Your task to perform on an android device: Search for vegetarian restaurants on Maps Image 0: 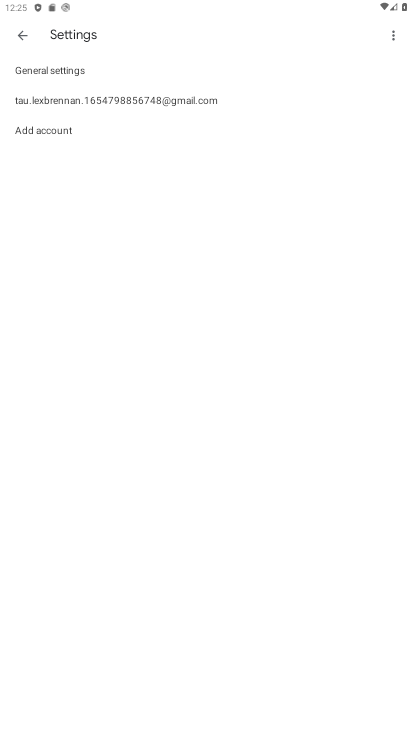
Step 0: press home button
Your task to perform on an android device: Search for vegetarian restaurants on Maps Image 1: 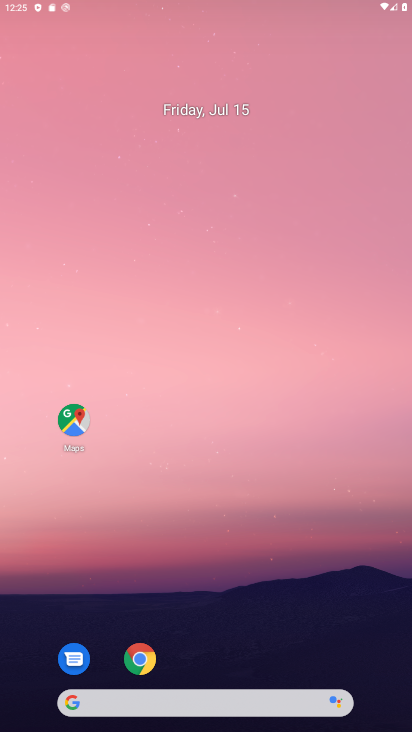
Step 1: click (65, 416)
Your task to perform on an android device: Search for vegetarian restaurants on Maps Image 2: 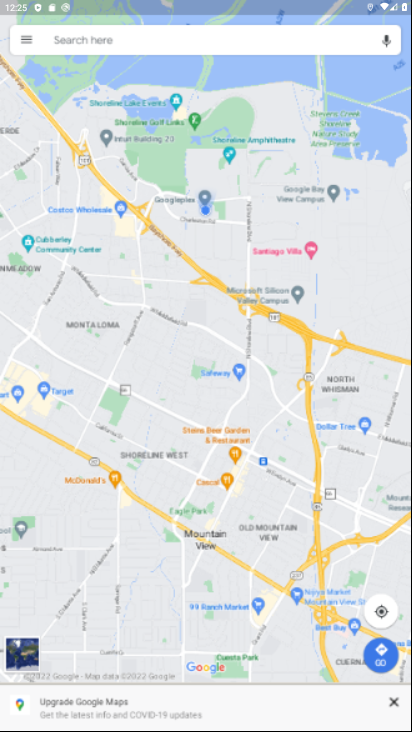
Step 2: click (117, 47)
Your task to perform on an android device: Search for vegetarian restaurants on Maps Image 3: 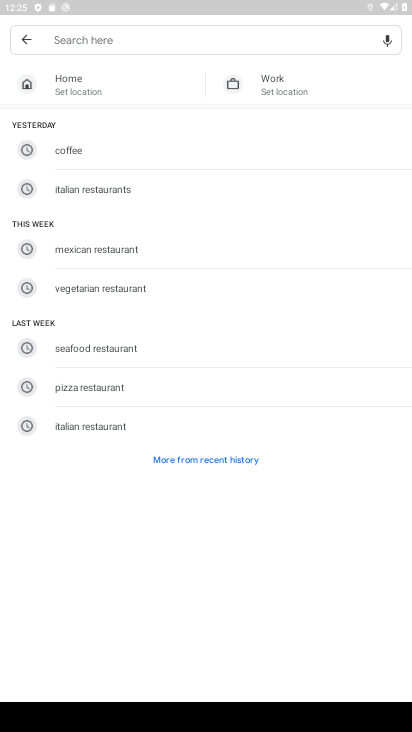
Step 3: click (162, 295)
Your task to perform on an android device: Search for vegetarian restaurants on Maps Image 4: 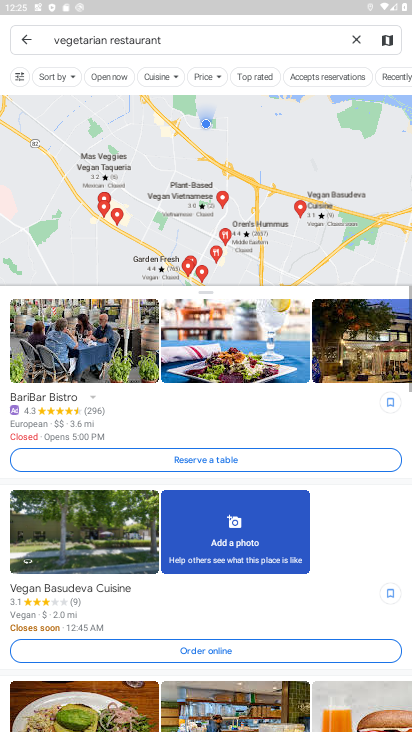
Step 4: task complete